Your task to perform on an android device: open device folders in google photos Image 0: 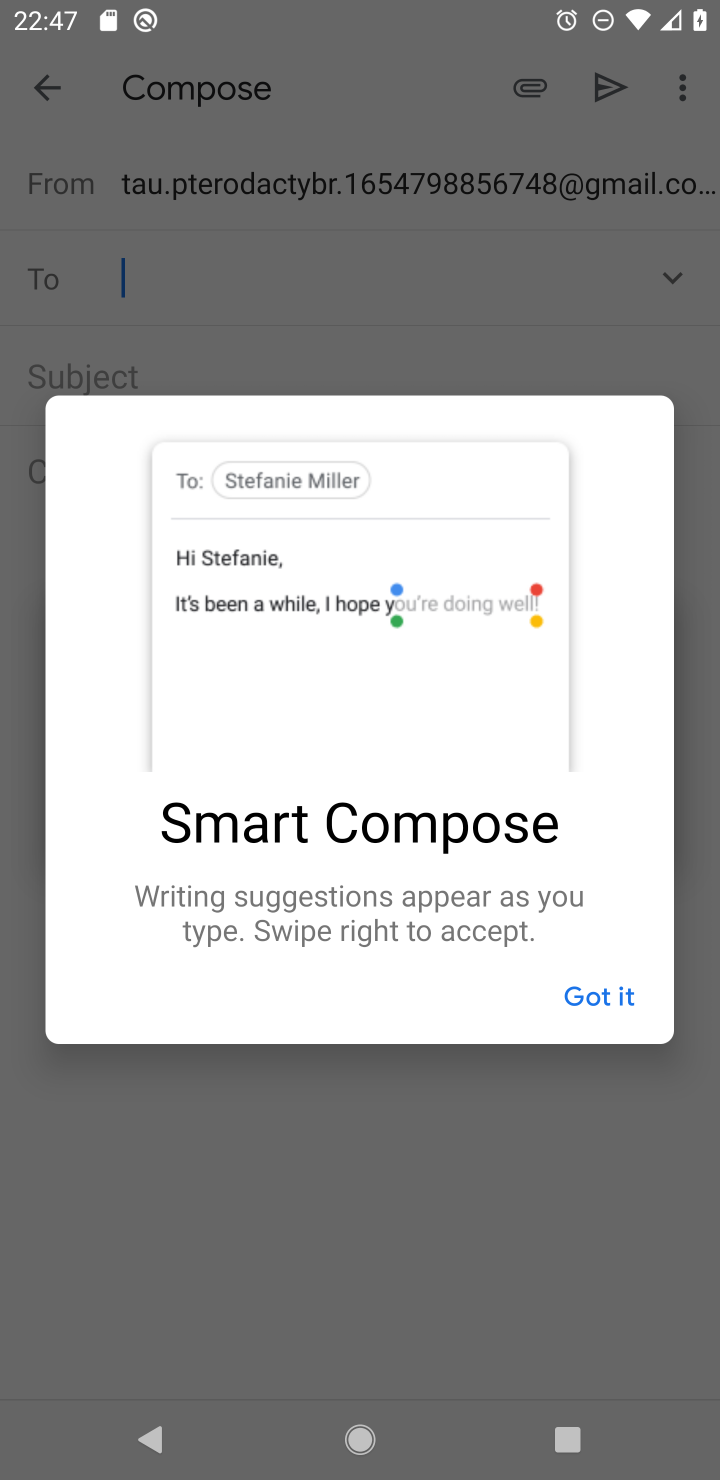
Step 0: press home button
Your task to perform on an android device: open device folders in google photos Image 1: 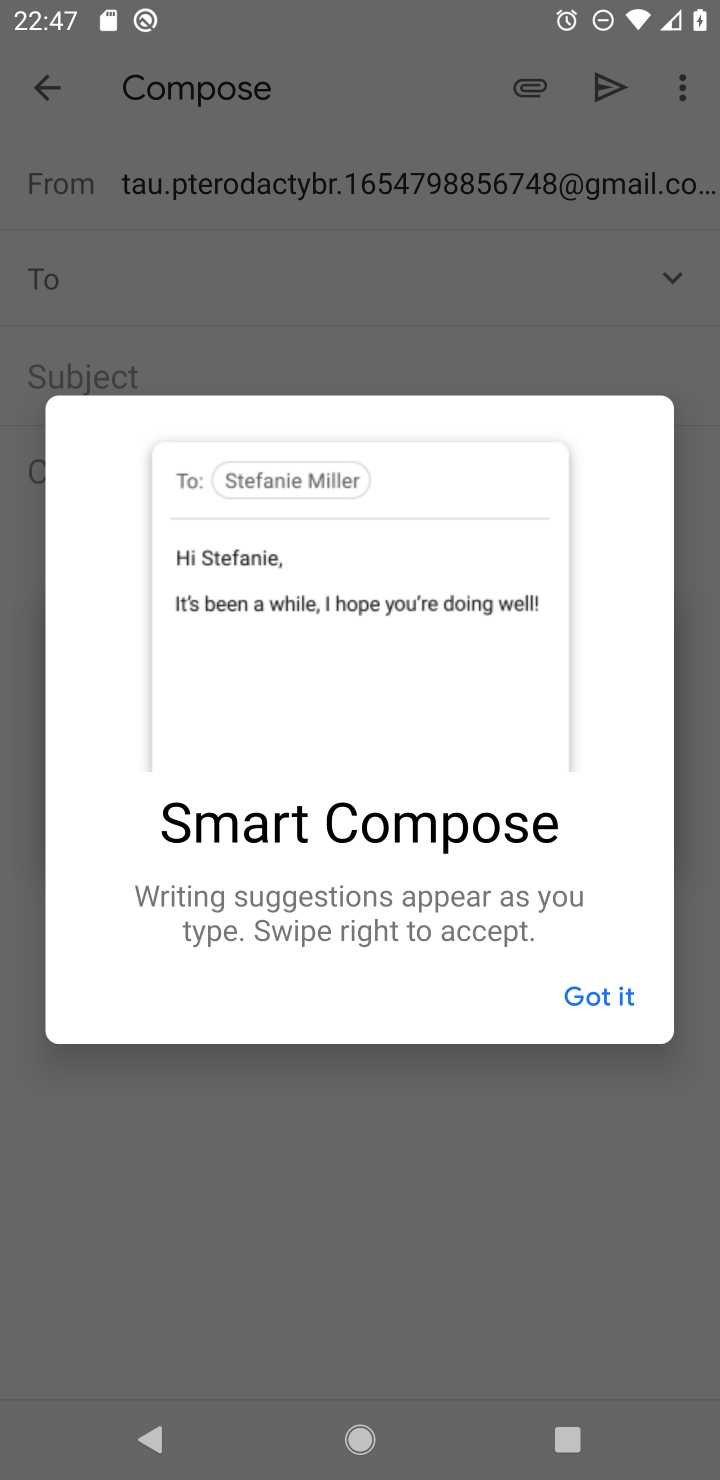
Step 1: press home button
Your task to perform on an android device: open device folders in google photos Image 2: 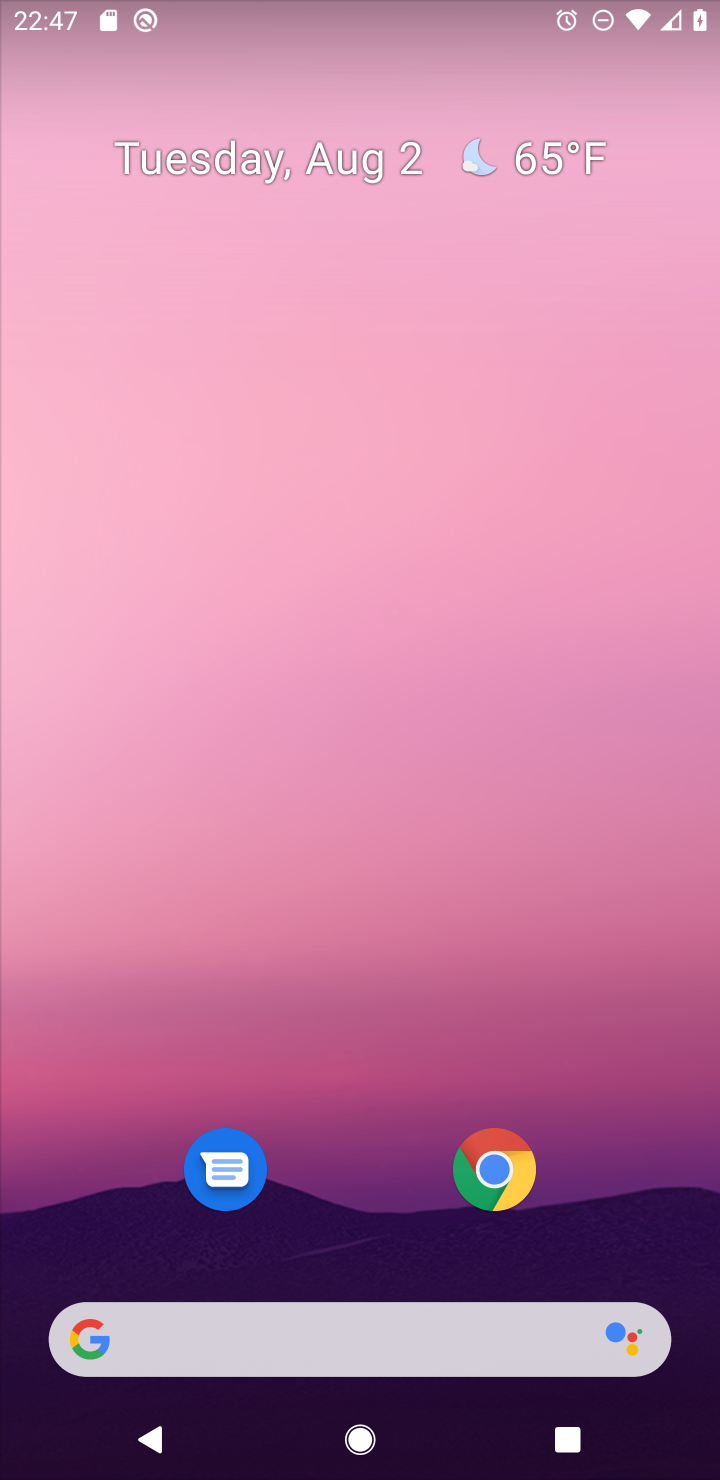
Step 2: press home button
Your task to perform on an android device: open device folders in google photos Image 3: 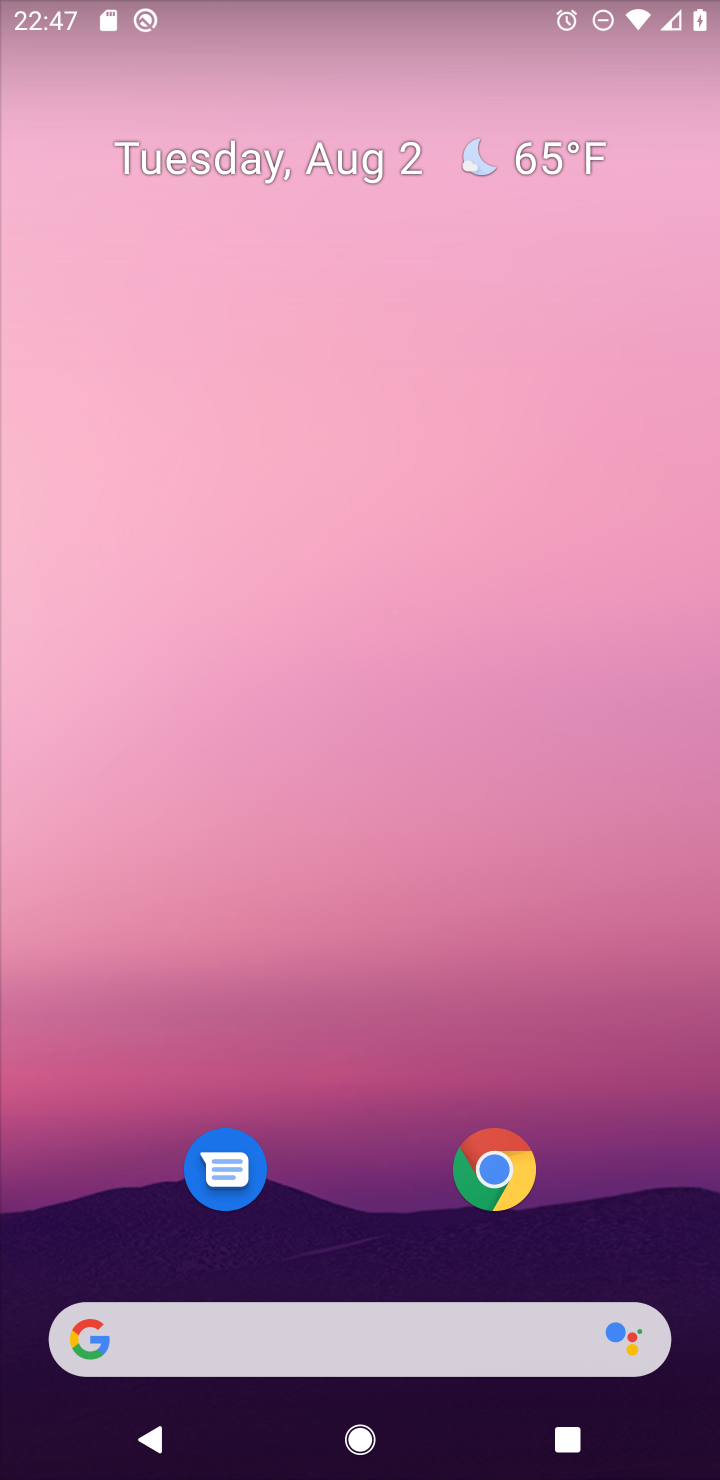
Step 3: drag from (327, 817) to (322, 84)
Your task to perform on an android device: open device folders in google photos Image 4: 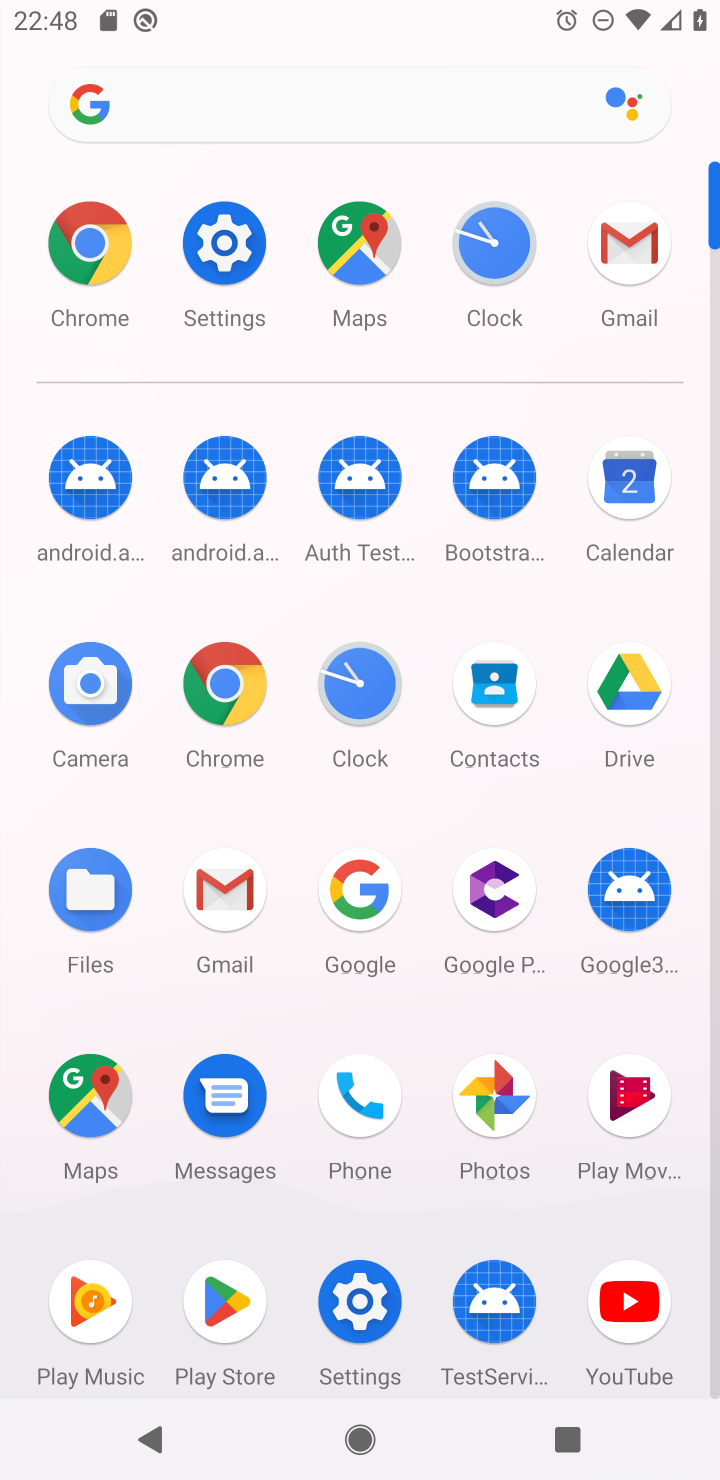
Step 4: click (504, 1086)
Your task to perform on an android device: open device folders in google photos Image 5: 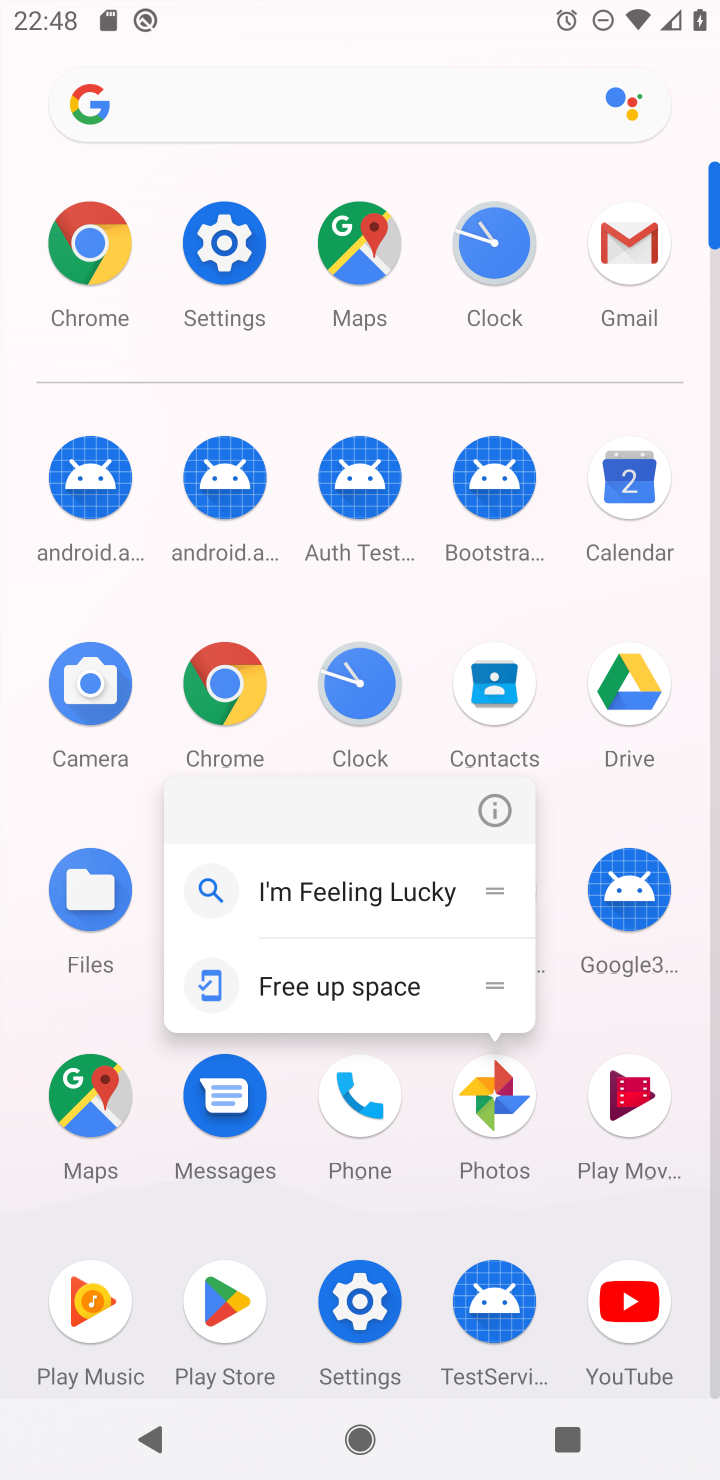
Step 5: click (504, 1086)
Your task to perform on an android device: open device folders in google photos Image 6: 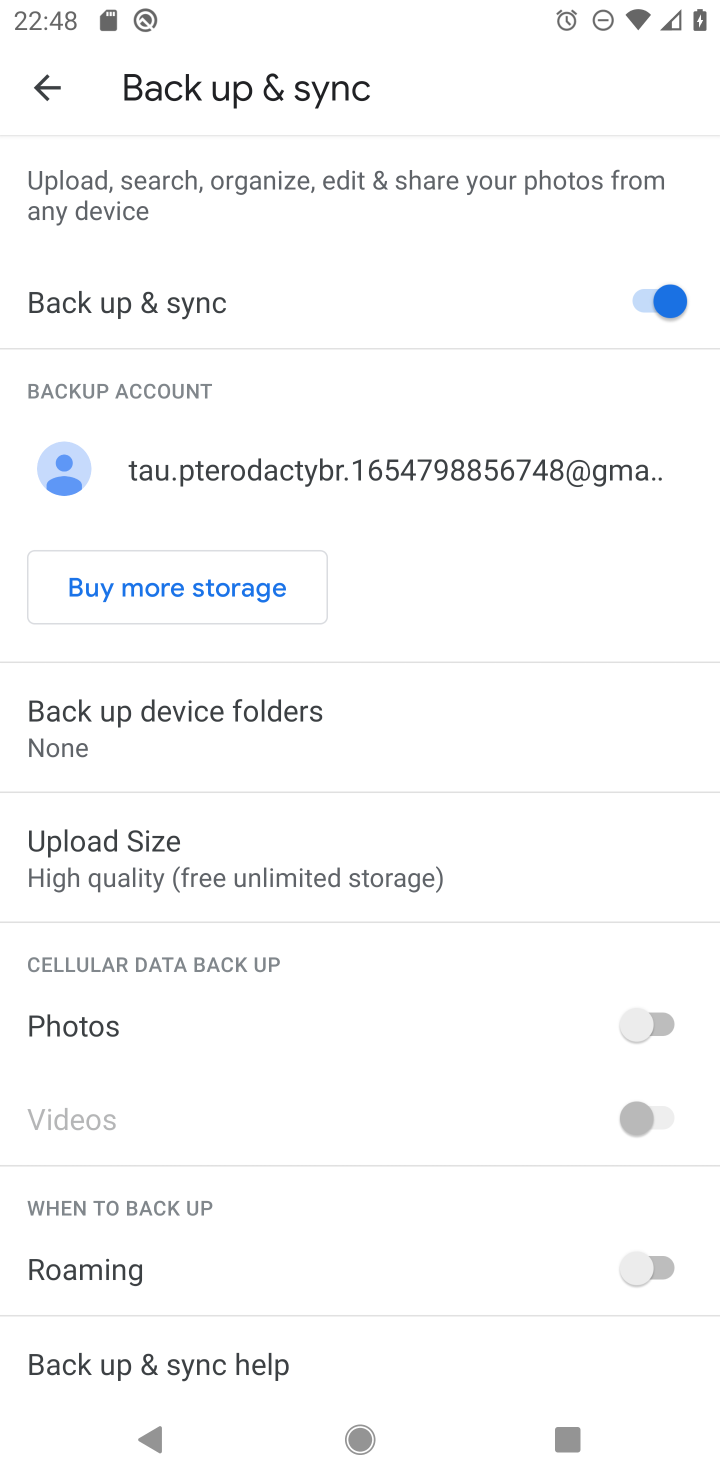
Step 6: click (45, 82)
Your task to perform on an android device: open device folders in google photos Image 7: 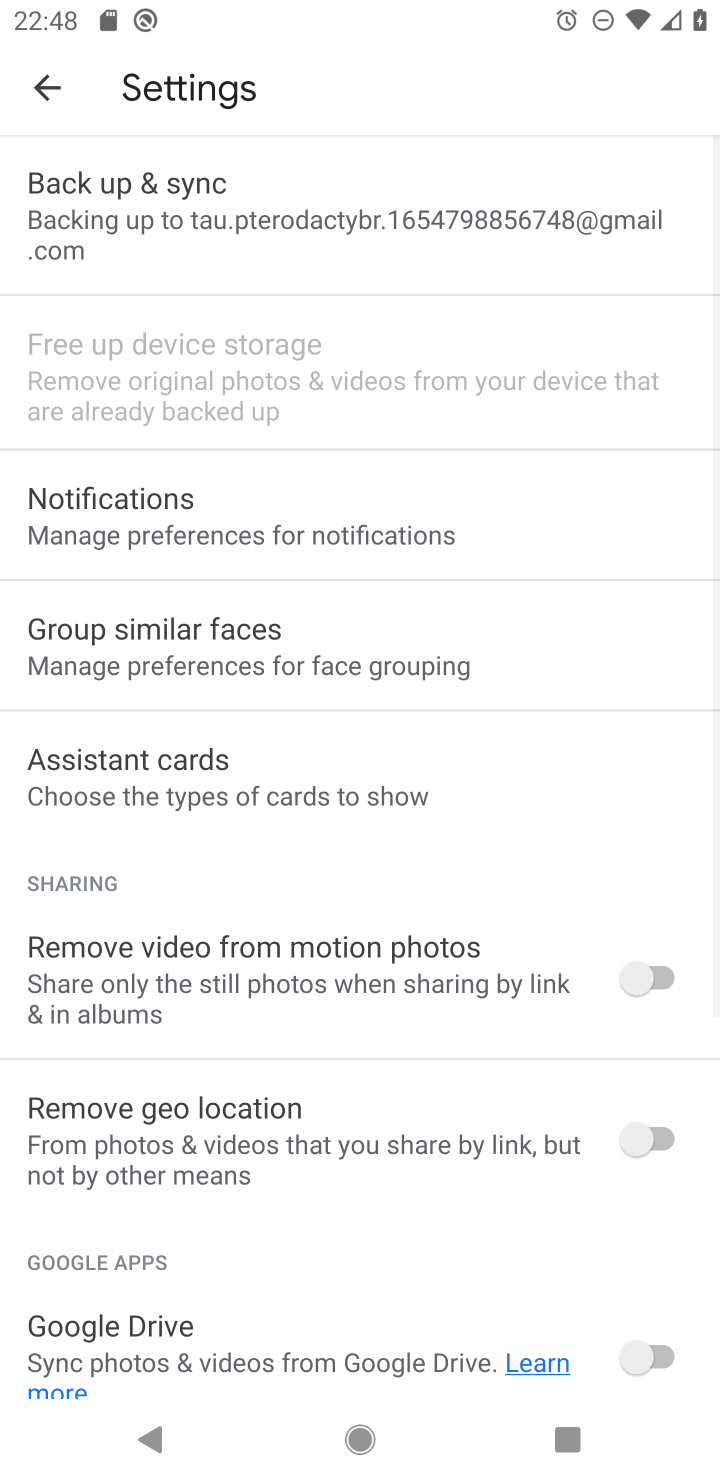
Step 7: click (45, 82)
Your task to perform on an android device: open device folders in google photos Image 8: 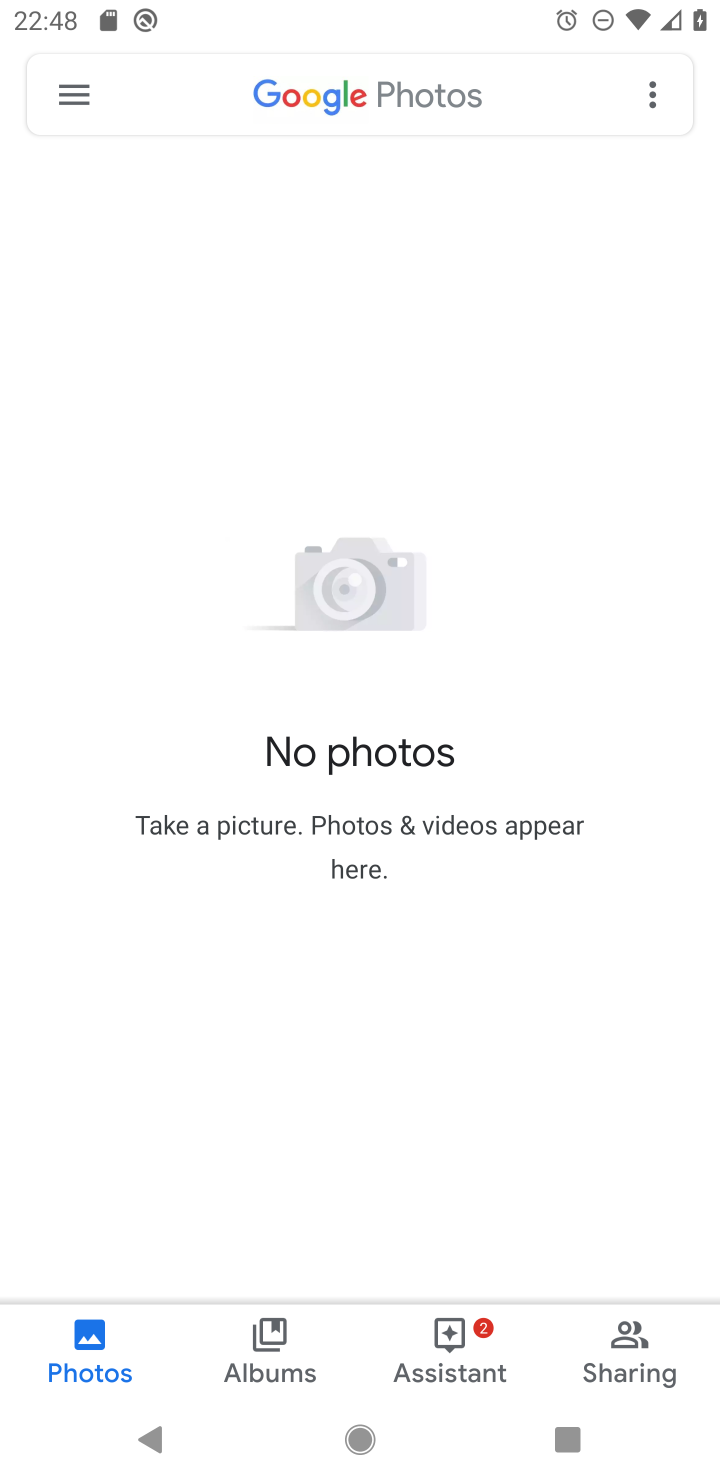
Step 8: click (73, 100)
Your task to perform on an android device: open device folders in google photos Image 9: 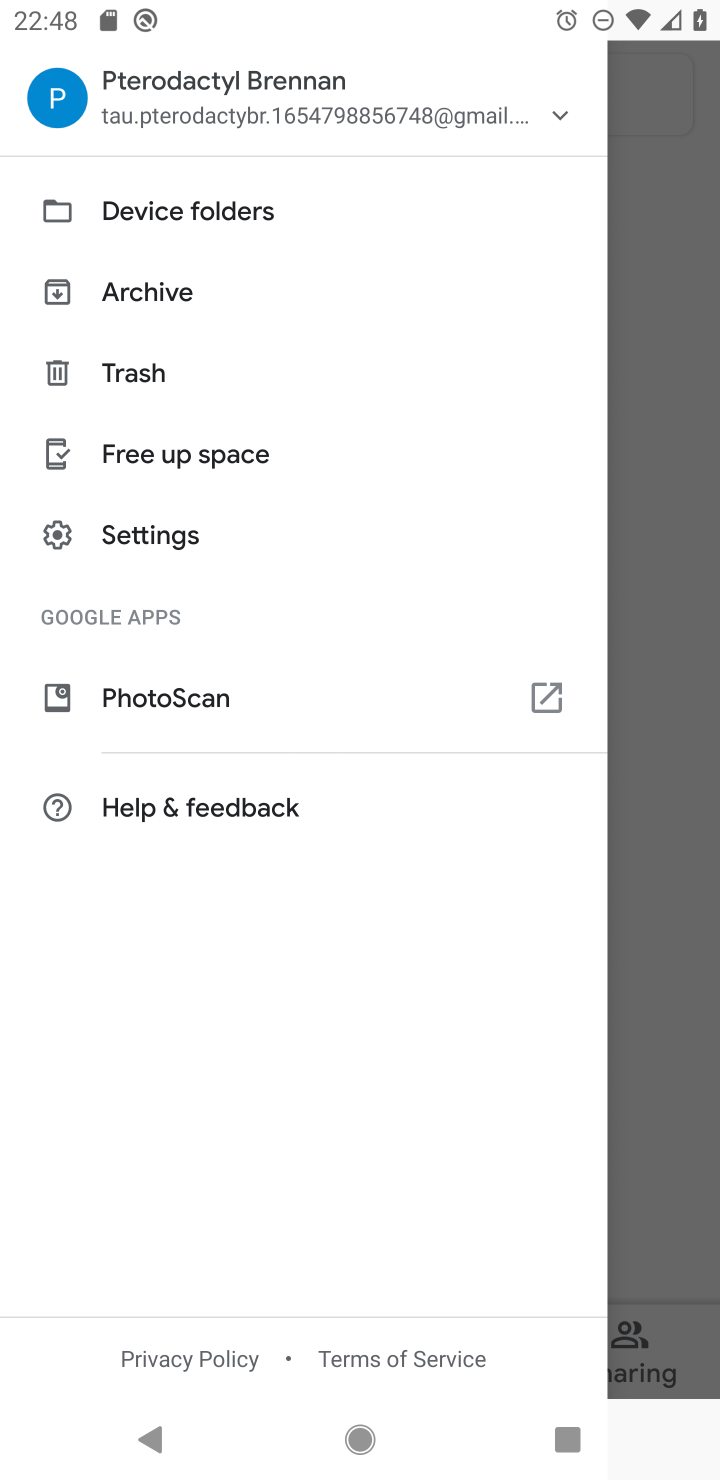
Step 9: click (188, 208)
Your task to perform on an android device: open device folders in google photos Image 10: 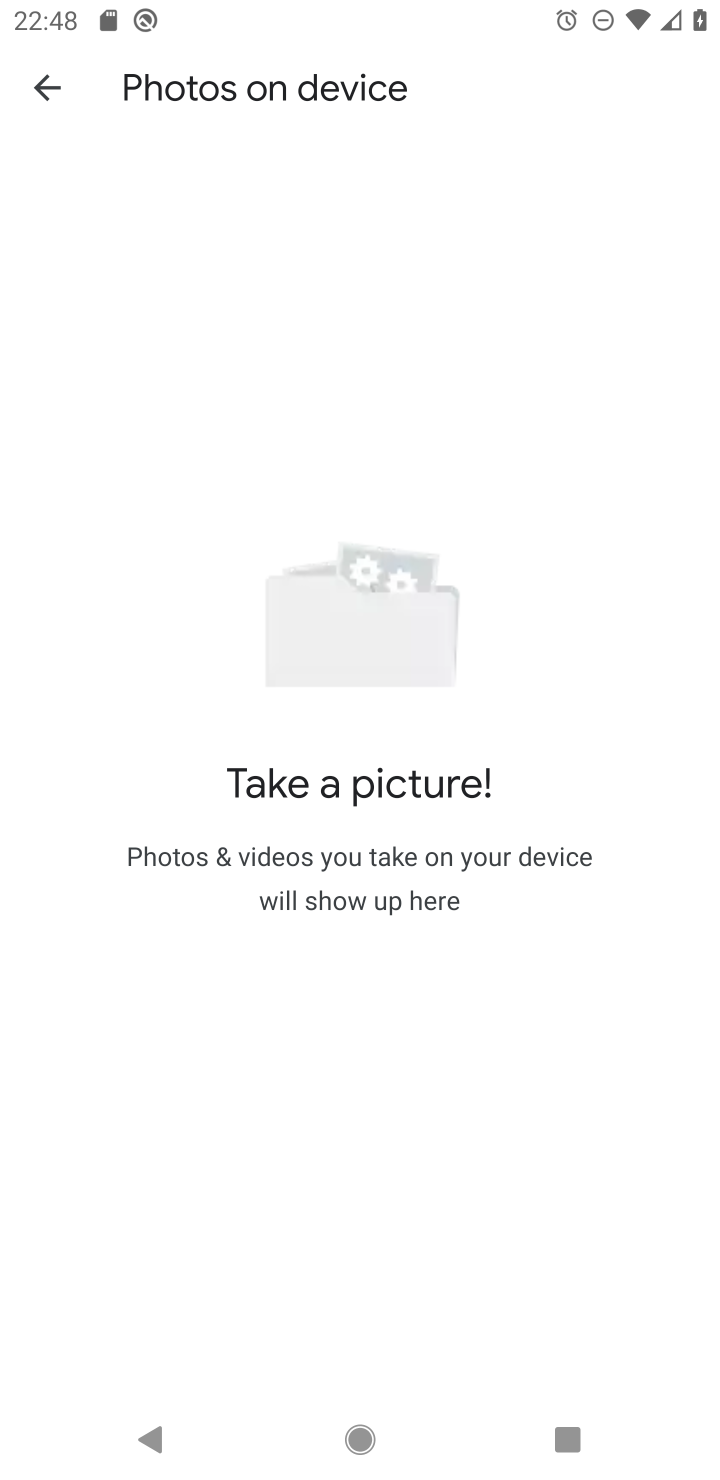
Step 10: task complete